Your task to perform on an android device: open a bookmark in the chrome app Image 0: 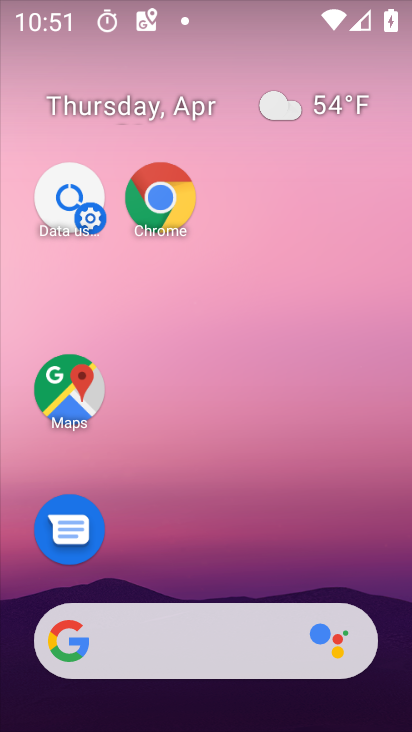
Step 0: drag from (199, 591) to (131, 48)
Your task to perform on an android device: open a bookmark in the chrome app Image 1: 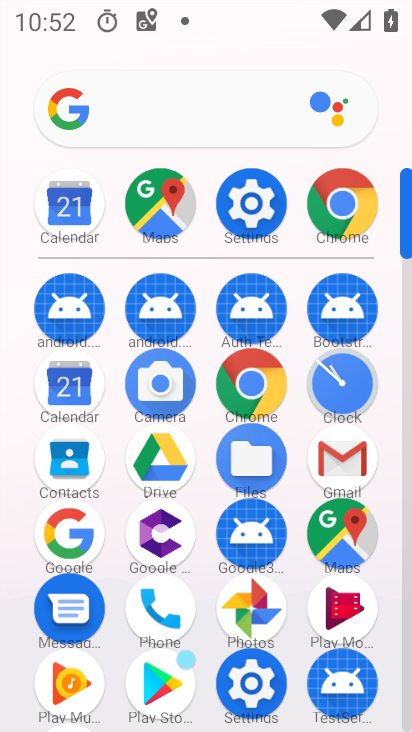
Step 1: click (246, 386)
Your task to perform on an android device: open a bookmark in the chrome app Image 2: 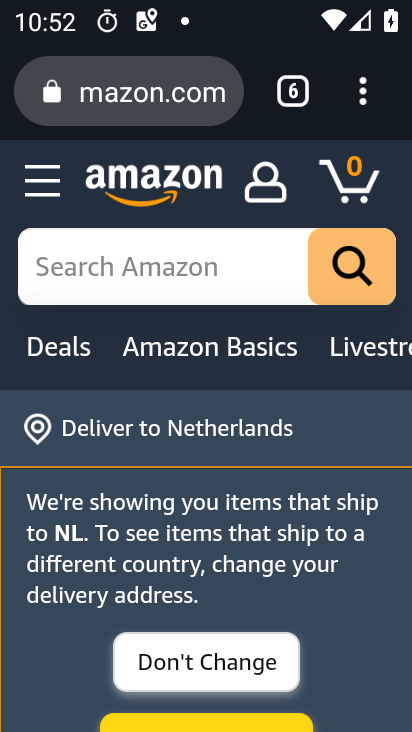
Step 2: click (358, 92)
Your task to perform on an android device: open a bookmark in the chrome app Image 3: 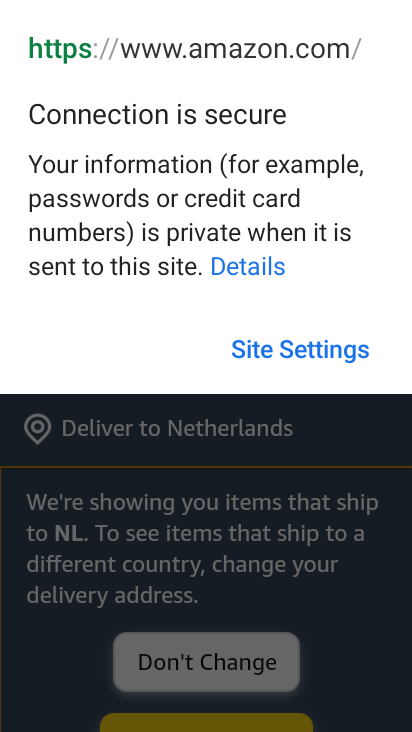
Step 3: click (307, 422)
Your task to perform on an android device: open a bookmark in the chrome app Image 4: 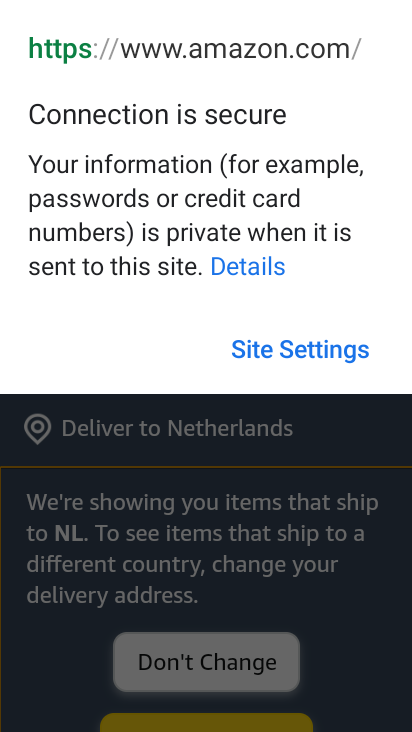
Step 4: click (328, 364)
Your task to perform on an android device: open a bookmark in the chrome app Image 5: 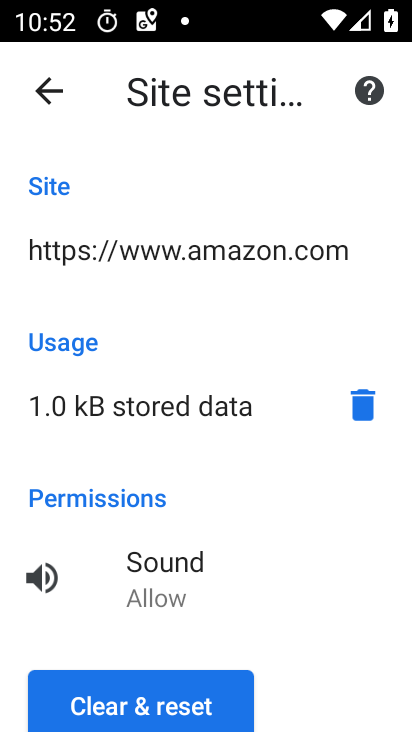
Step 5: click (53, 78)
Your task to perform on an android device: open a bookmark in the chrome app Image 6: 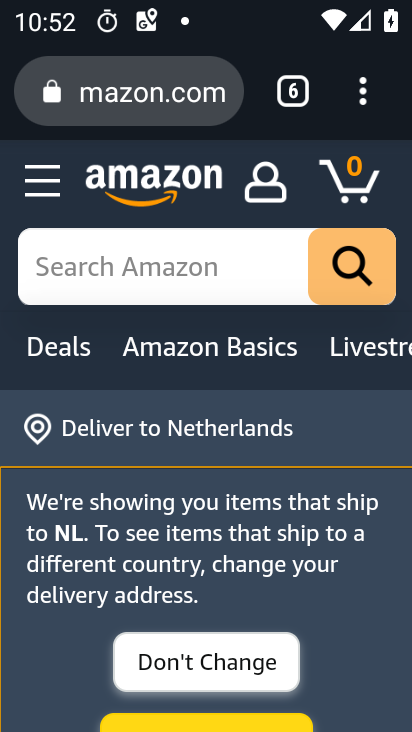
Step 6: task complete